Your task to perform on an android device: Open the phone app and click the voicemail tab. Image 0: 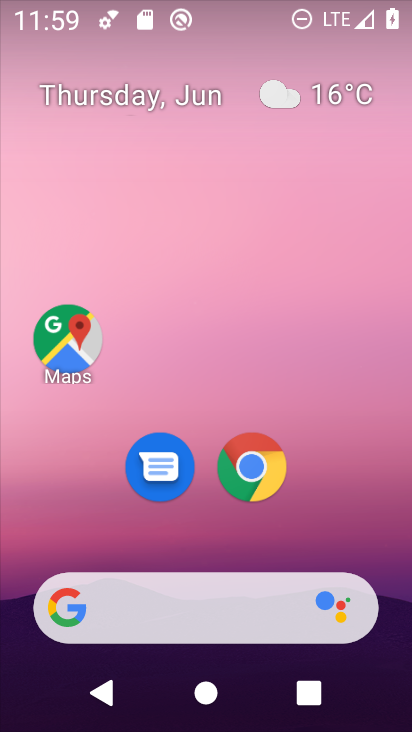
Step 0: drag from (391, 584) to (282, 89)
Your task to perform on an android device: Open the phone app and click the voicemail tab. Image 1: 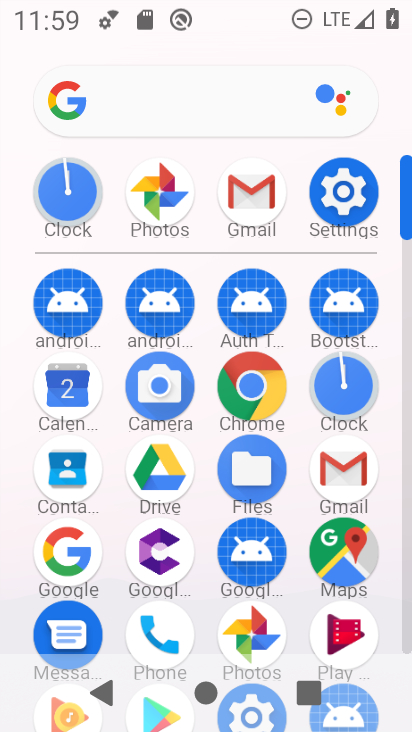
Step 1: click (158, 634)
Your task to perform on an android device: Open the phone app and click the voicemail tab. Image 2: 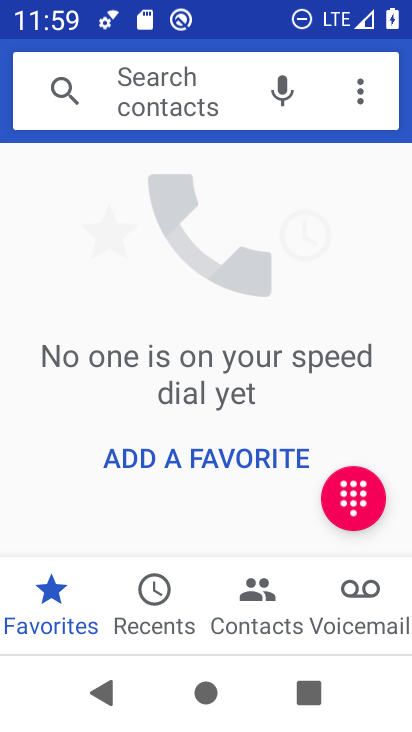
Step 2: click (348, 601)
Your task to perform on an android device: Open the phone app and click the voicemail tab. Image 3: 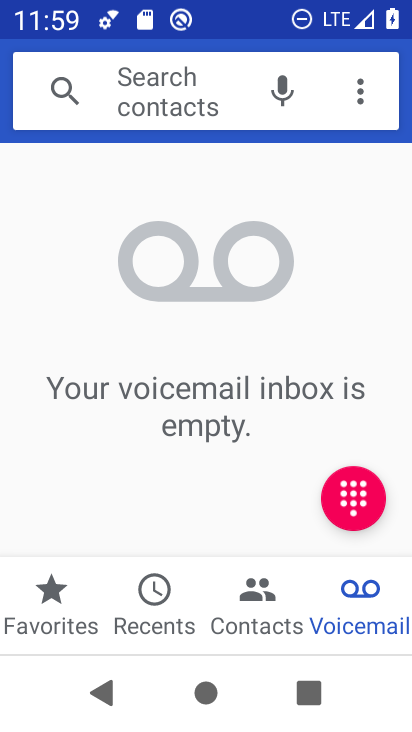
Step 3: task complete